Your task to perform on an android device: snooze an email in the gmail app Image 0: 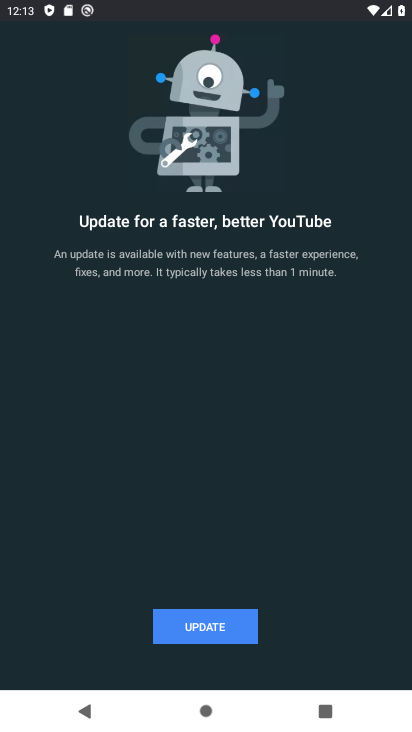
Step 0: press back button
Your task to perform on an android device: snooze an email in the gmail app Image 1: 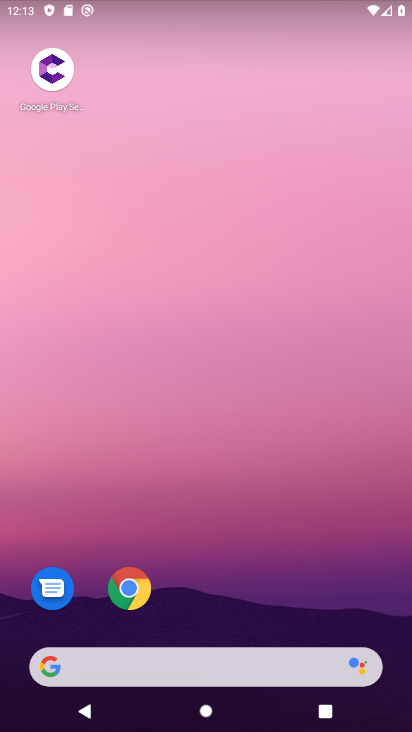
Step 1: drag from (256, 652) to (223, 254)
Your task to perform on an android device: snooze an email in the gmail app Image 2: 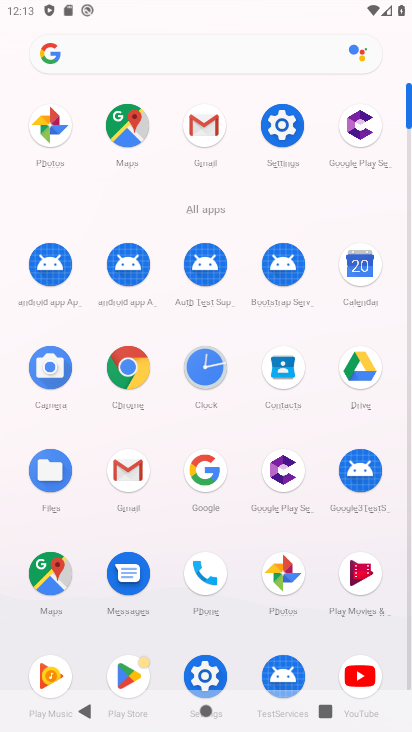
Step 2: click (195, 107)
Your task to perform on an android device: snooze an email in the gmail app Image 3: 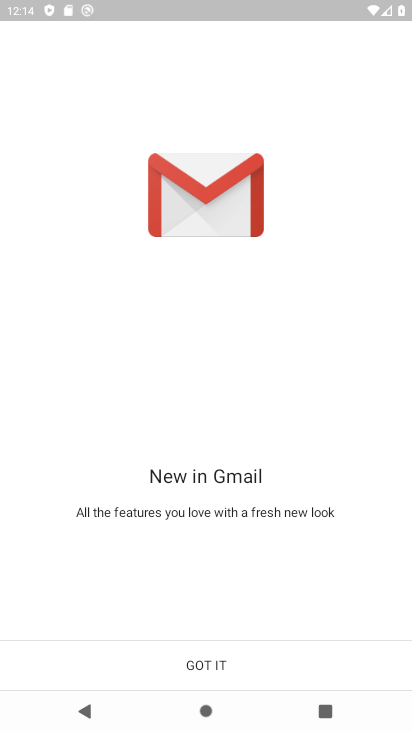
Step 3: click (292, 635)
Your task to perform on an android device: snooze an email in the gmail app Image 4: 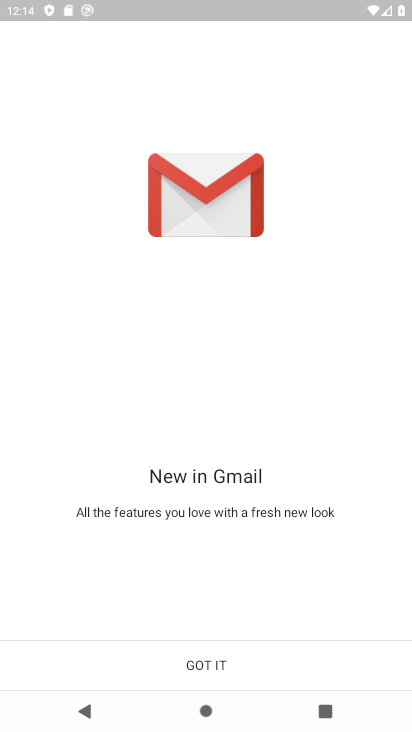
Step 4: click (271, 672)
Your task to perform on an android device: snooze an email in the gmail app Image 5: 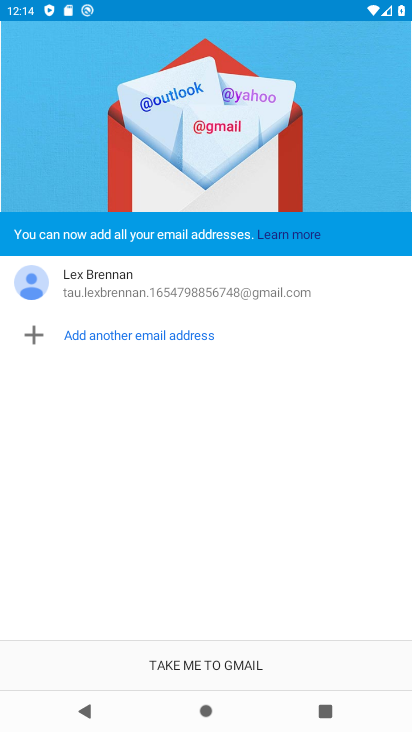
Step 5: click (271, 672)
Your task to perform on an android device: snooze an email in the gmail app Image 6: 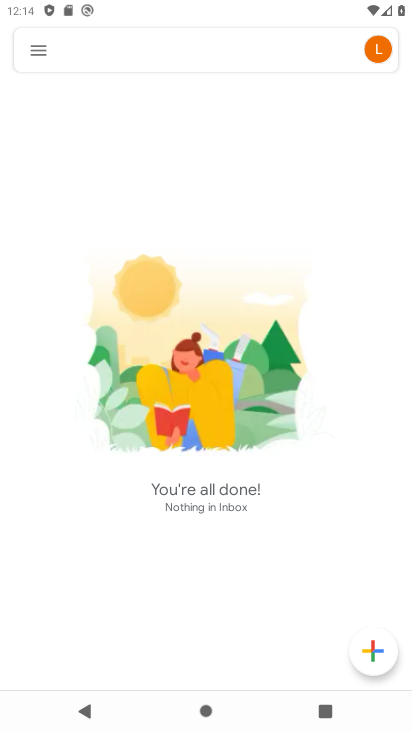
Step 6: click (36, 45)
Your task to perform on an android device: snooze an email in the gmail app Image 7: 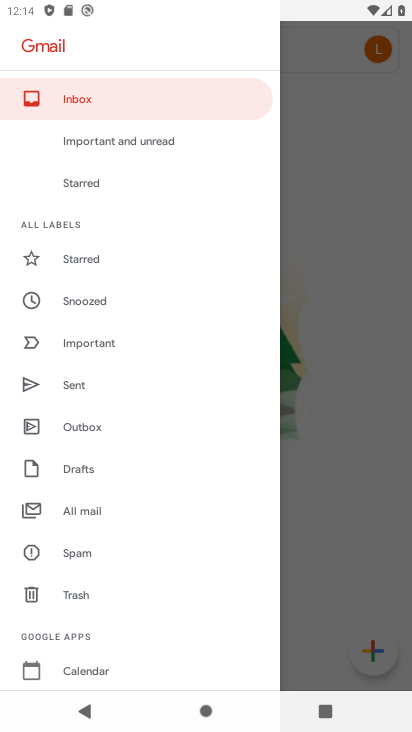
Step 7: click (105, 509)
Your task to perform on an android device: snooze an email in the gmail app Image 8: 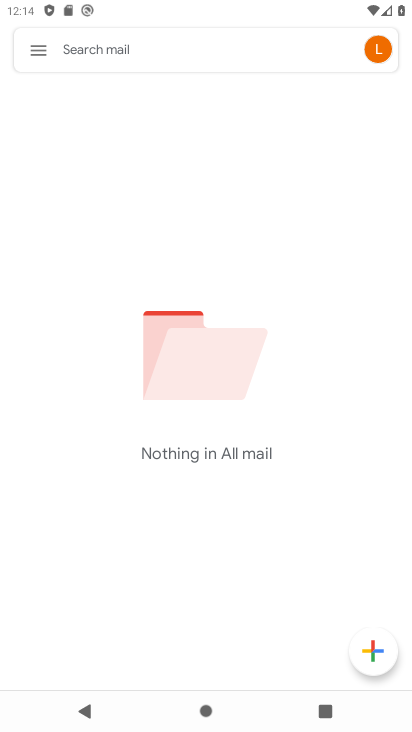
Step 8: task complete